Your task to perform on an android device: Go to Reddit.com Image 0: 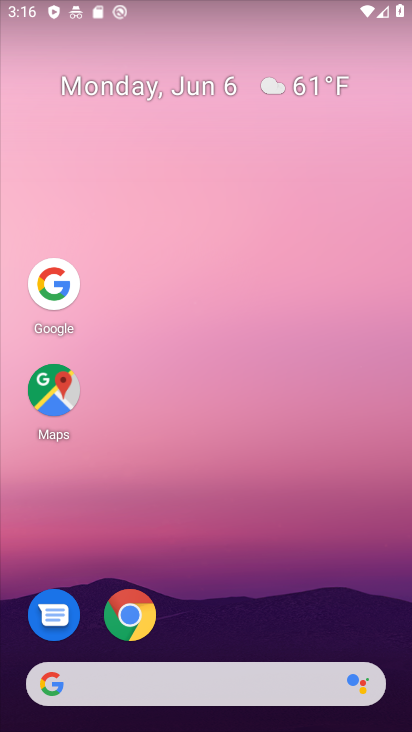
Step 0: click (62, 279)
Your task to perform on an android device: Go to Reddit.com Image 1: 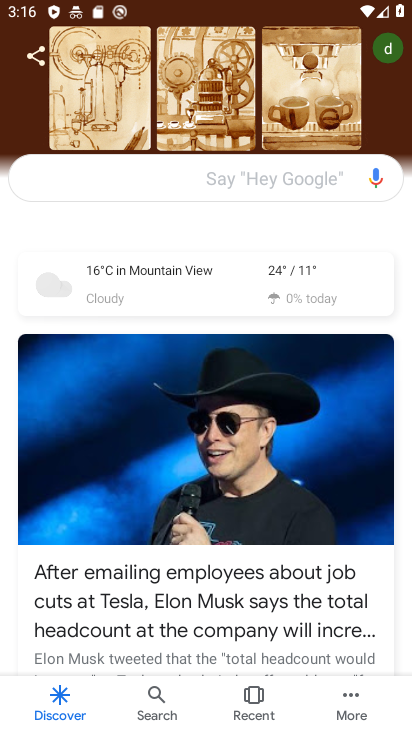
Step 1: click (145, 168)
Your task to perform on an android device: Go to Reddit.com Image 2: 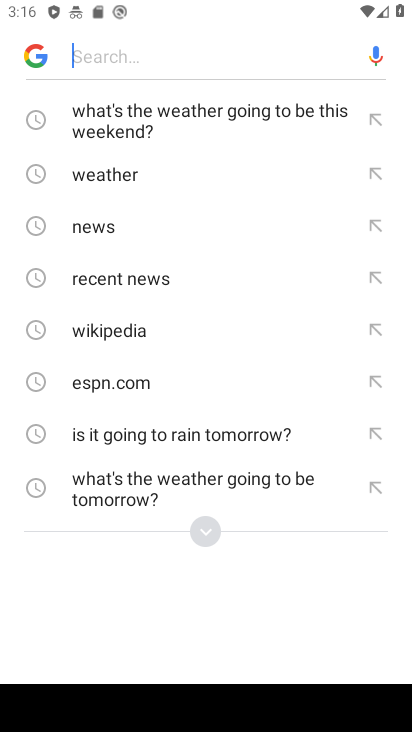
Step 2: click (210, 532)
Your task to perform on an android device: Go to Reddit.com Image 3: 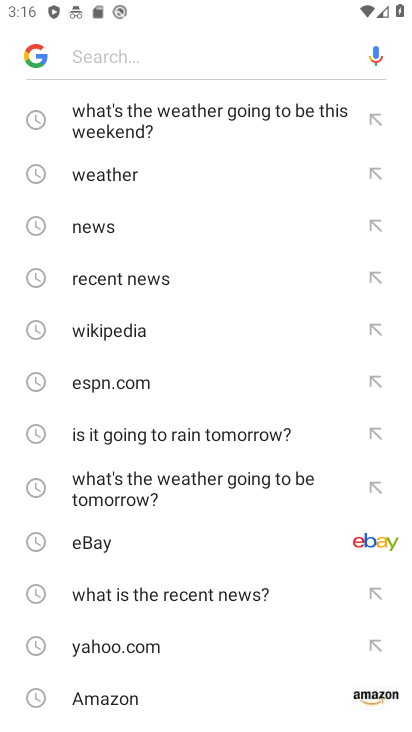
Step 3: drag from (180, 595) to (234, 184)
Your task to perform on an android device: Go to Reddit.com Image 4: 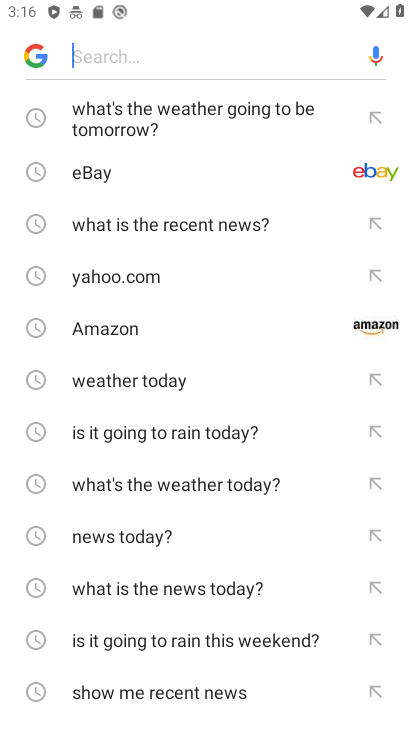
Step 4: drag from (162, 598) to (177, 183)
Your task to perform on an android device: Go to Reddit.com Image 5: 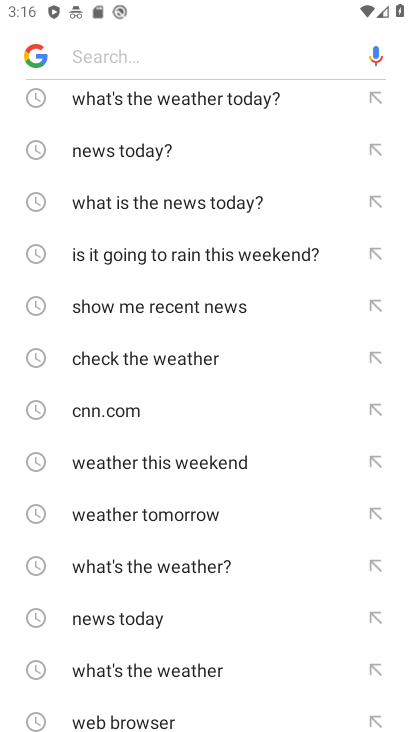
Step 5: drag from (133, 663) to (174, 294)
Your task to perform on an android device: Go to Reddit.com Image 6: 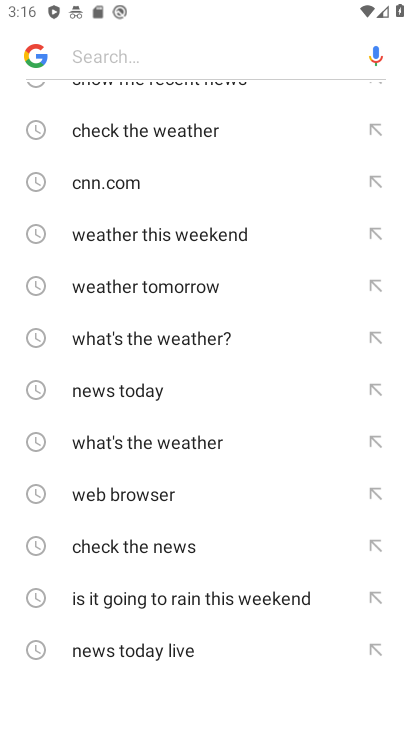
Step 6: drag from (194, 637) to (172, 300)
Your task to perform on an android device: Go to Reddit.com Image 7: 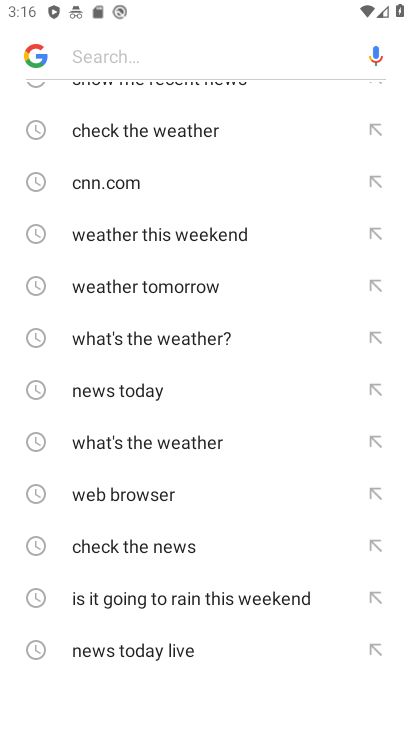
Step 7: type "reddit"
Your task to perform on an android device: Go to Reddit.com Image 8: 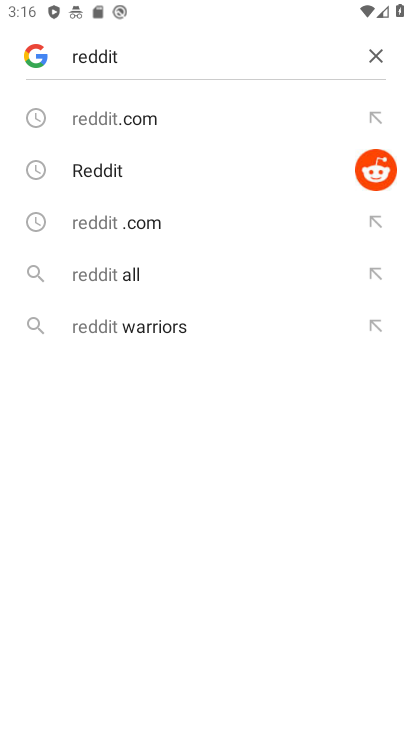
Step 8: click (104, 178)
Your task to perform on an android device: Go to Reddit.com Image 9: 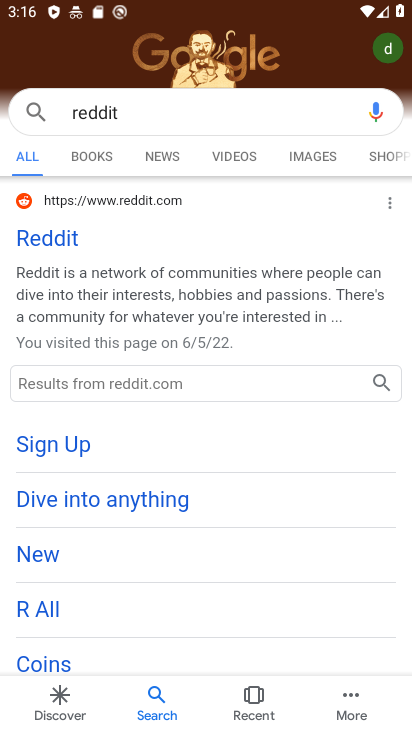
Step 9: click (55, 225)
Your task to perform on an android device: Go to Reddit.com Image 10: 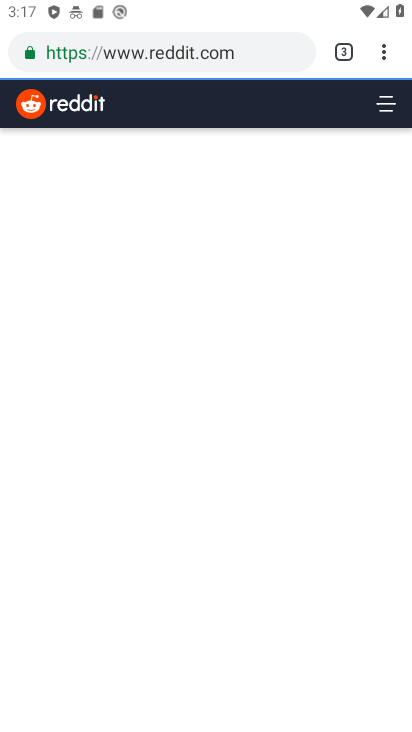
Step 10: task complete